Your task to perform on an android device: show emergency info Image 0: 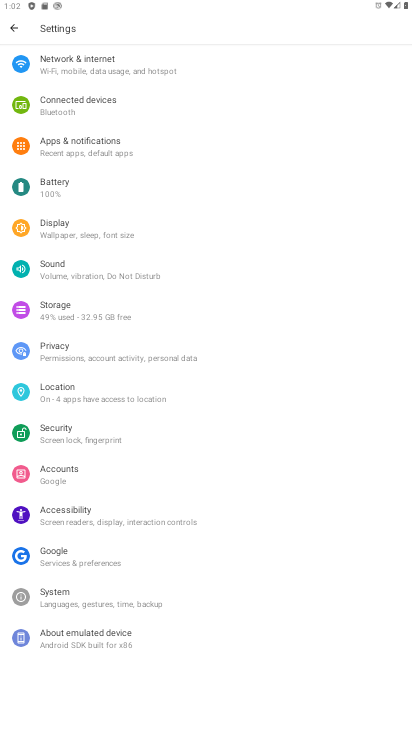
Step 0: click (163, 666)
Your task to perform on an android device: show emergency info Image 1: 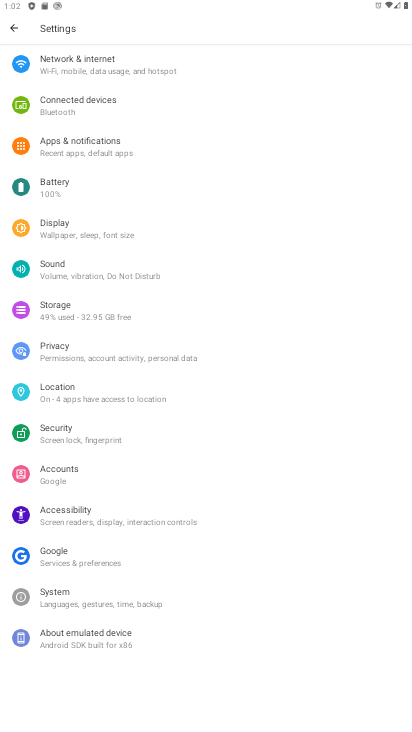
Step 1: click (120, 646)
Your task to perform on an android device: show emergency info Image 2: 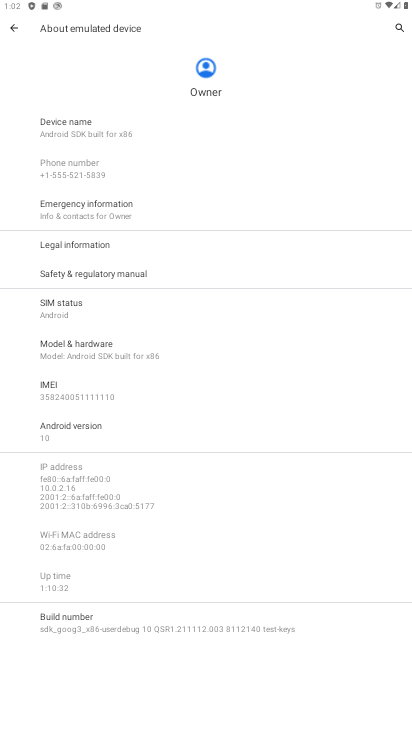
Step 2: click (105, 206)
Your task to perform on an android device: show emergency info Image 3: 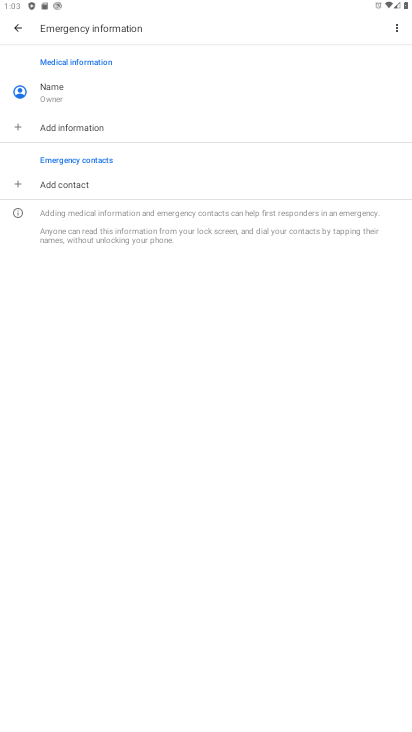
Step 3: task complete